Your task to perform on an android device: Turn off the flashlight Image 0: 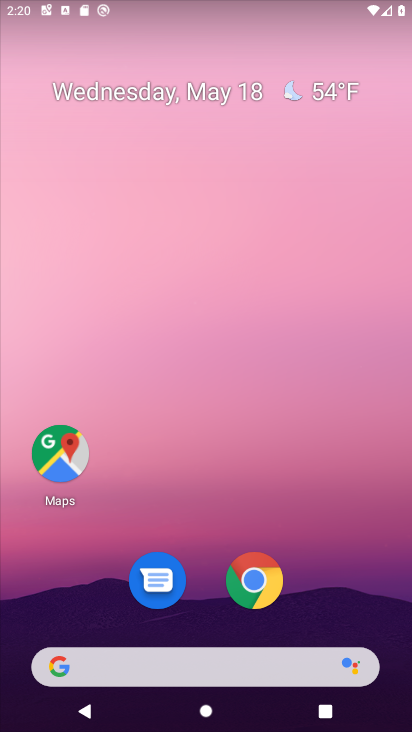
Step 0: click (299, 145)
Your task to perform on an android device: Turn off the flashlight Image 1: 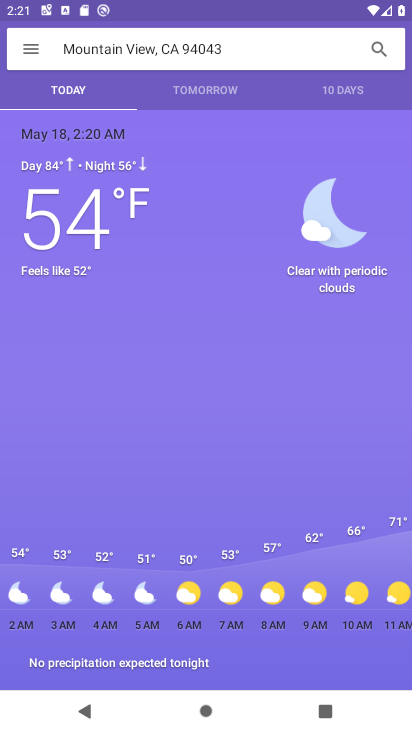
Step 1: press home button
Your task to perform on an android device: Turn off the flashlight Image 2: 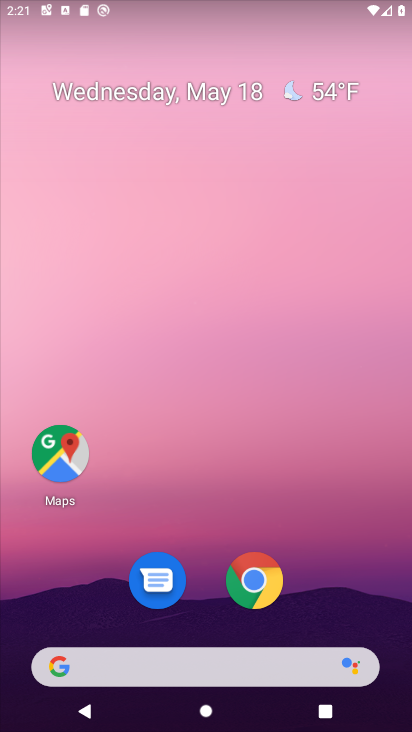
Step 2: drag from (225, 628) to (304, 54)
Your task to perform on an android device: Turn off the flashlight Image 3: 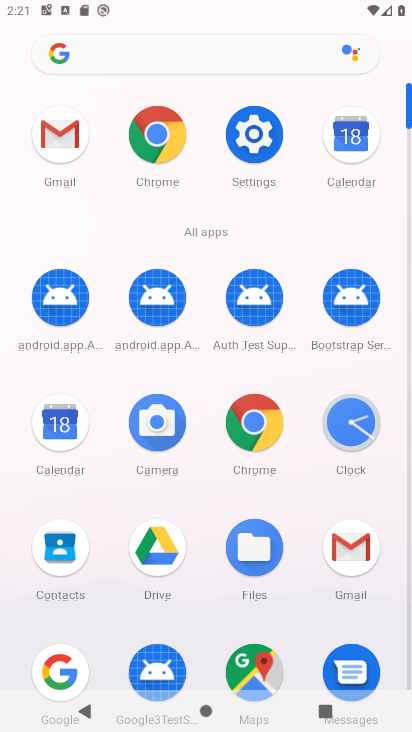
Step 3: click (254, 119)
Your task to perform on an android device: Turn off the flashlight Image 4: 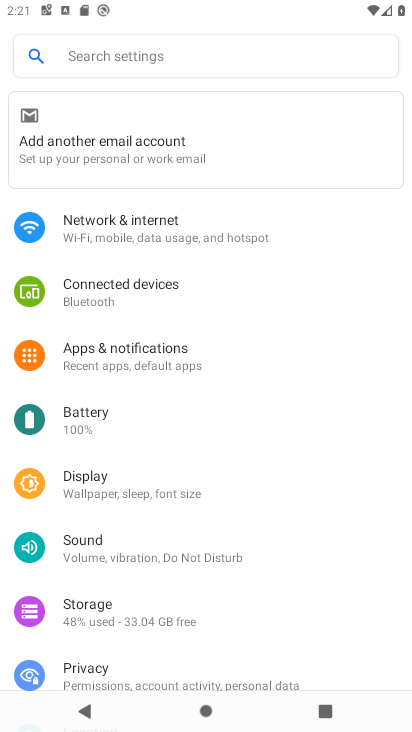
Step 4: click (115, 52)
Your task to perform on an android device: Turn off the flashlight Image 5: 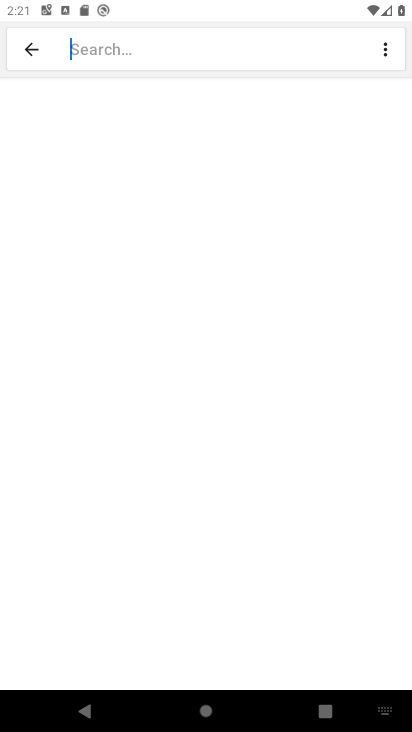
Step 5: type "flashlight"
Your task to perform on an android device: Turn off the flashlight Image 6: 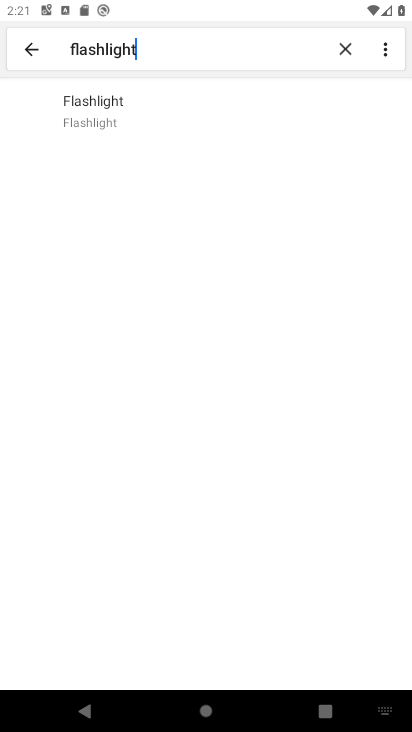
Step 6: click (173, 102)
Your task to perform on an android device: Turn off the flashlight Image 7: 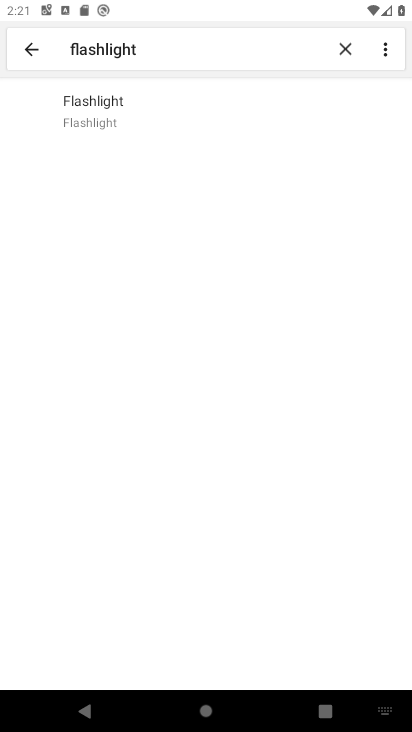
Step 7: click (115, 125)
Your task to perform on an android device: Turn off the flashlight Image 8: 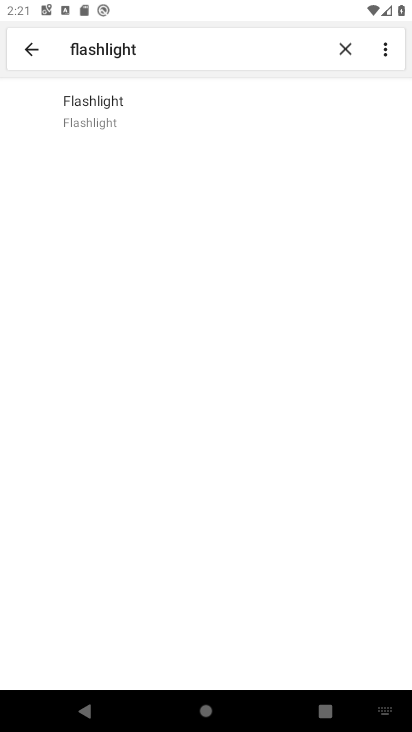
Step 8: task complete